Your task to perform on an android device: Open network settings Image 0: 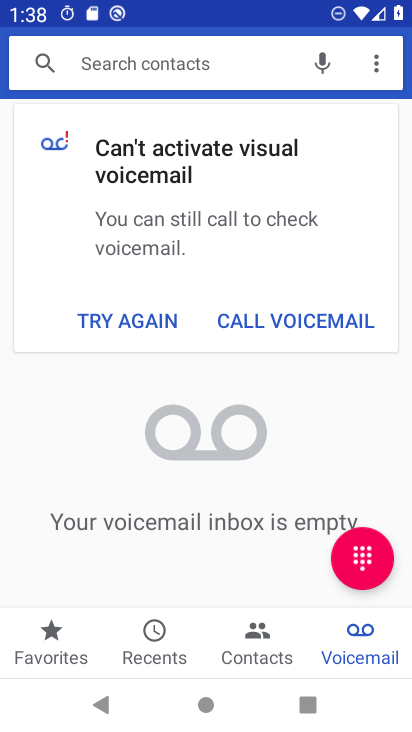
Step 0: press home button
Your task to perform on an android device: Open network settings Image 1: 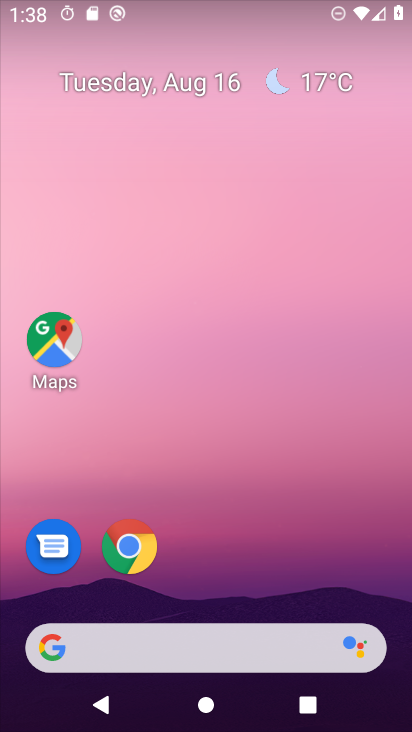
Step 1: drag from (214, 602) to (200, 228)
Your task to perform on an android device: Open network settings Image 2: 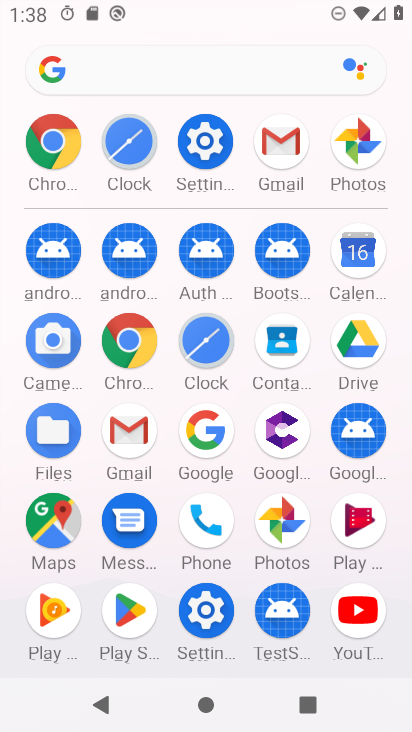
Step 2: click (206, 138)
Your task to perform on an android device: Open network settings Image 3: 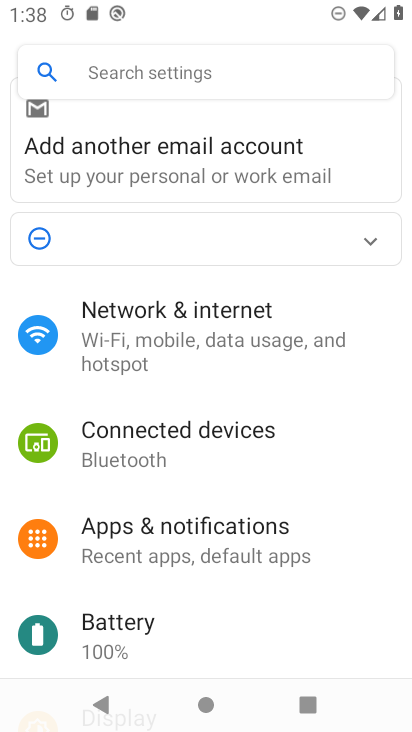
Step 3: click (127, 328)
Your task to perform on an android device: Open network settings Image 4: 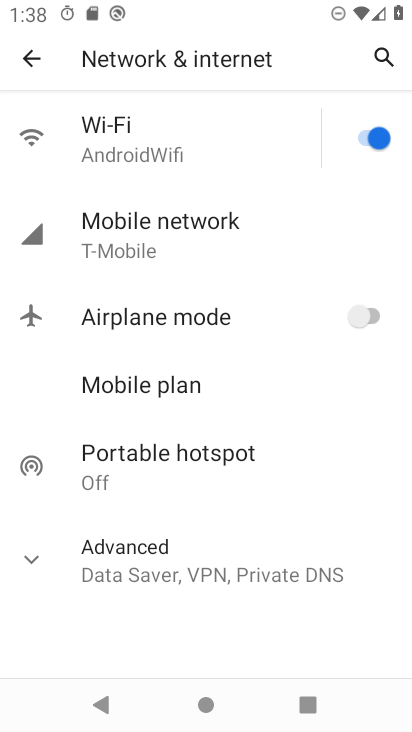
Step 4: click (119, 221)
Your task to perform on an android device: Open network settings Image 5: 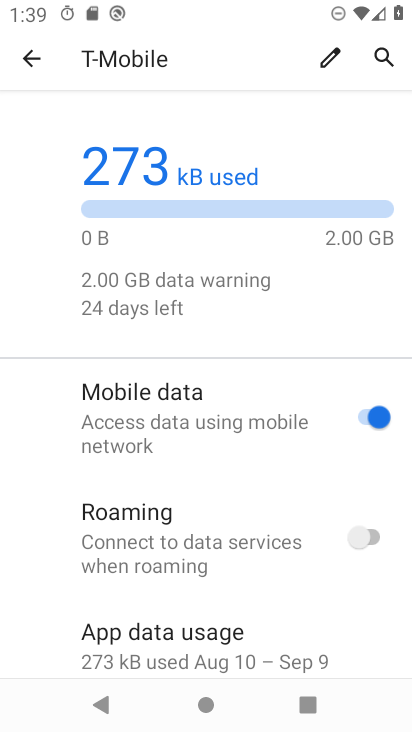
Step 5: task complete